Your task to perform on an android device: Clear the cart on walmart. Add "logitech g933" to the cart on walmart Image 0: 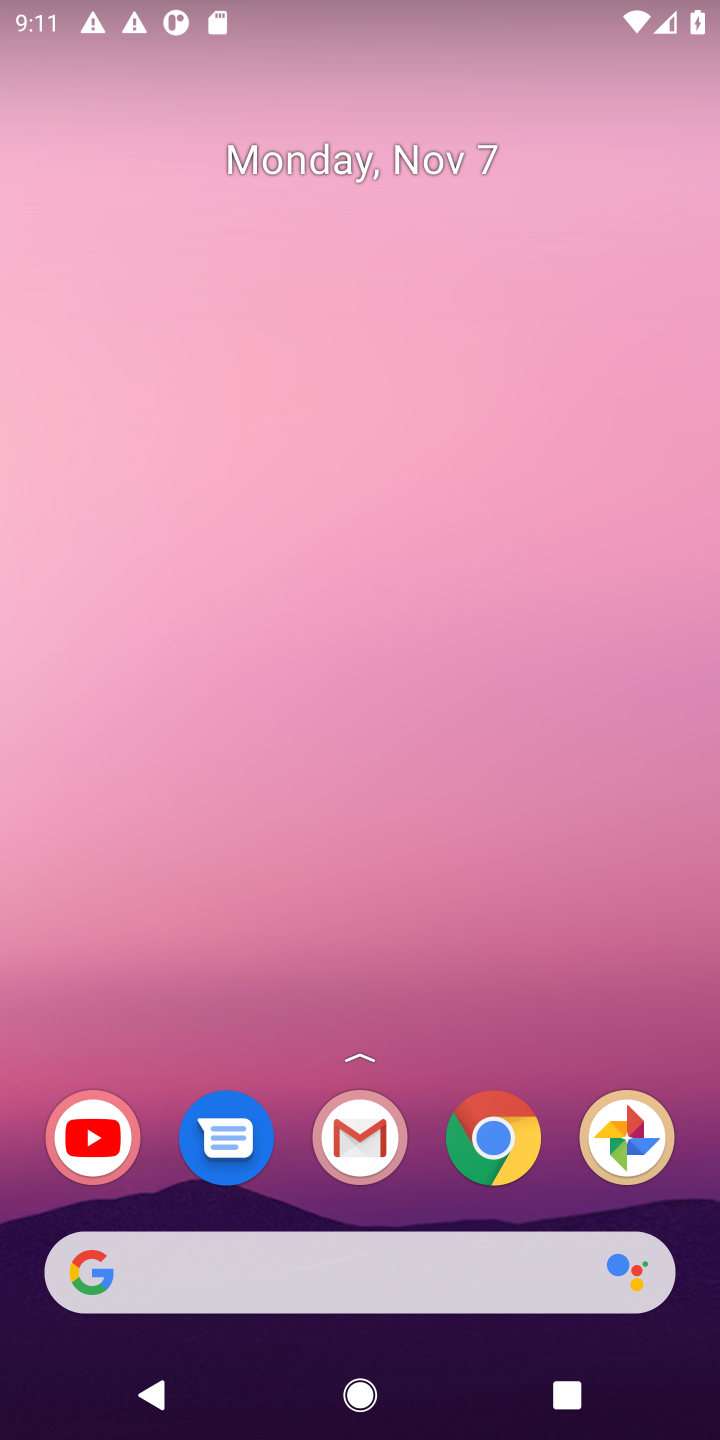
Step 0: click (497, 1129)
Your task to perform on an android device: Clear the cart on walmart. Add "logitech g933" to the cart on walmart Image 1: 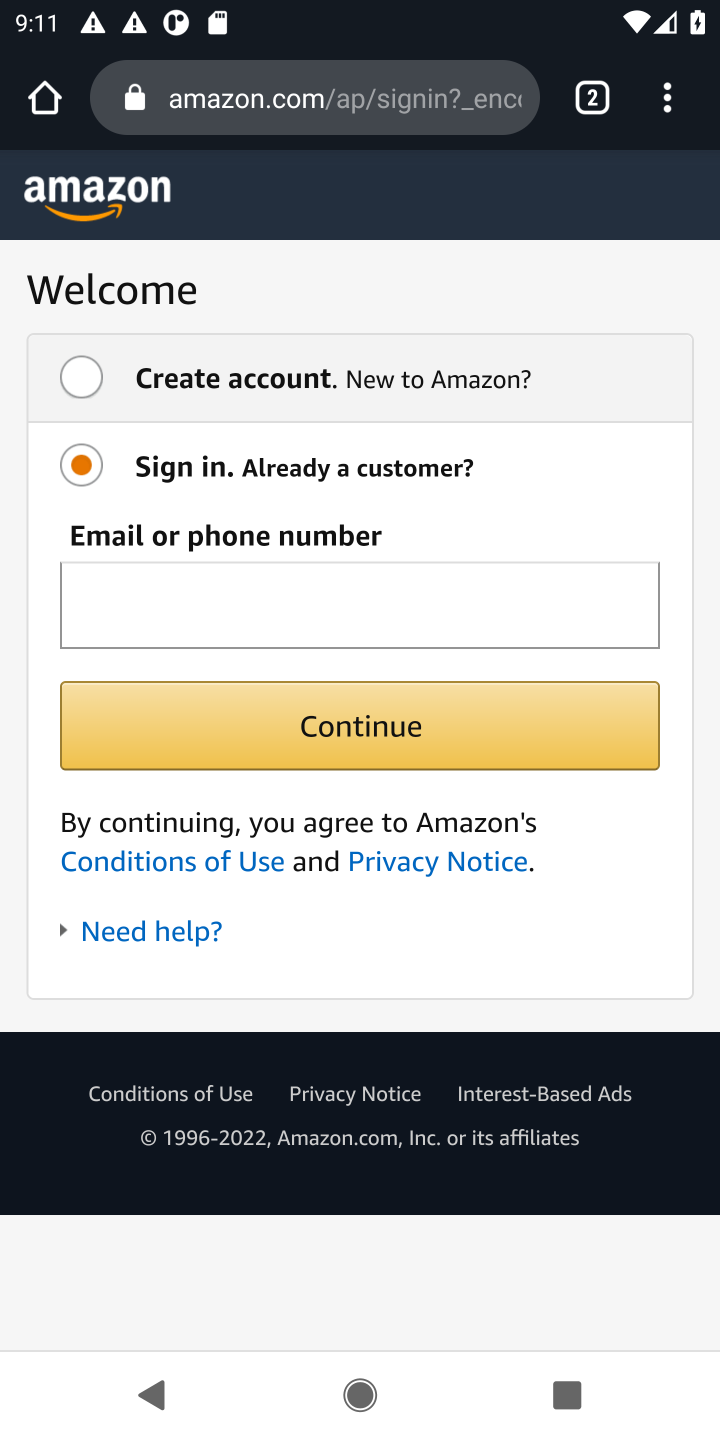
Step 1: click (603, 115)
Your task to perform on an android device: Clear the cart on walmart. Add "logitech g933" to the cart on walmart Image 2: 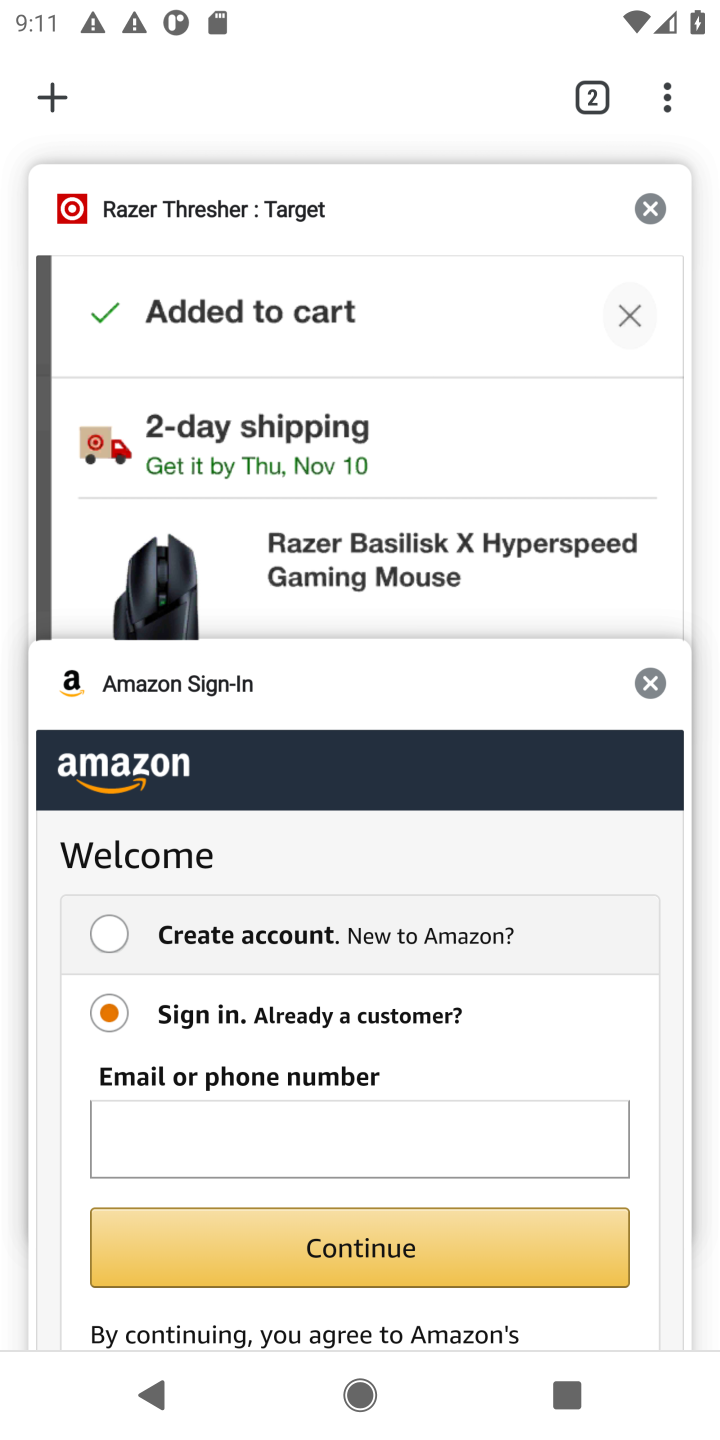
Step 2: click (41, 111)
Your task to perform on an android device: Clear the cart on walmart. Add "logitech g933" to the cart on walmart Image 3: 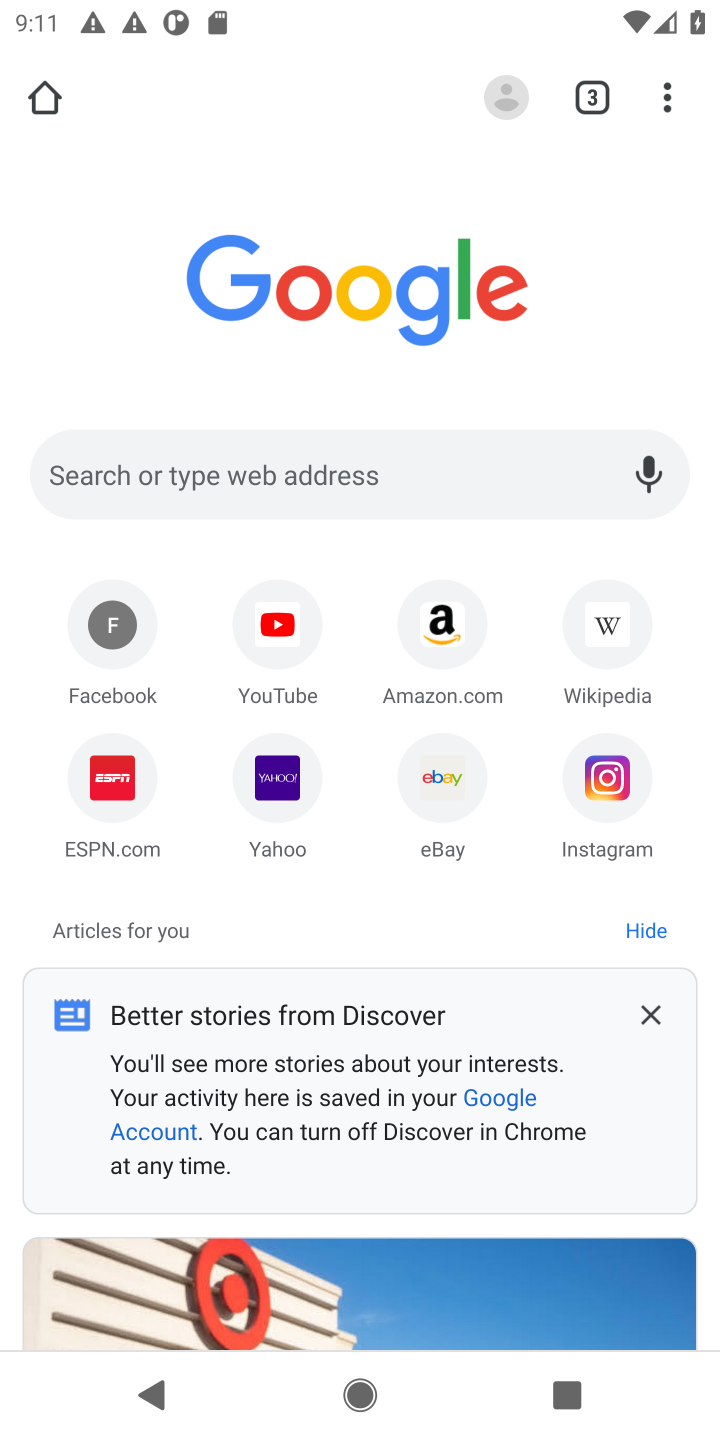
Step 3: click (211, 470)
Your task to perform on an android device: Clear the cart on walmart. Add "logitech g933" to the cart on walmart Image 4: 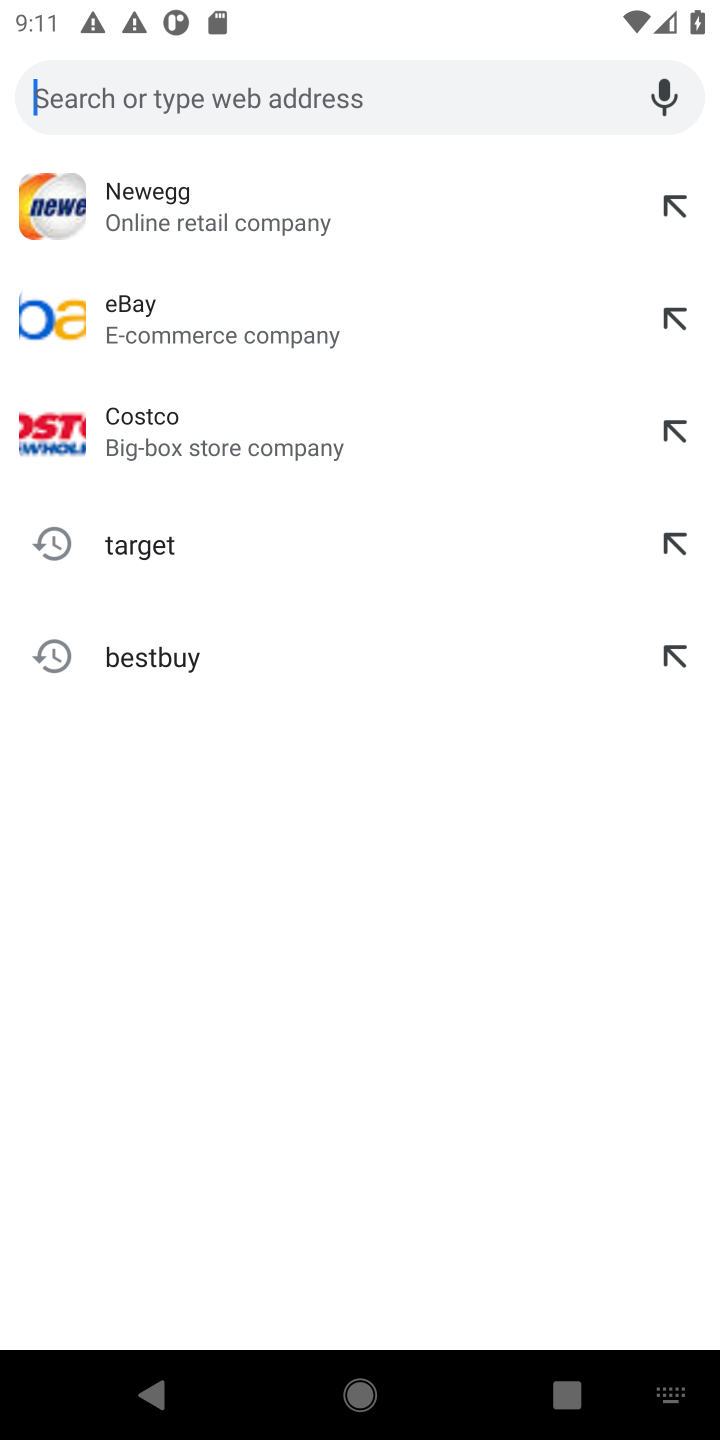
Step 4: type "walmart"
Your task to perform on an android device: Clear the cart on walmart. Add "logitech g933" to the cart on walmart Image 5: 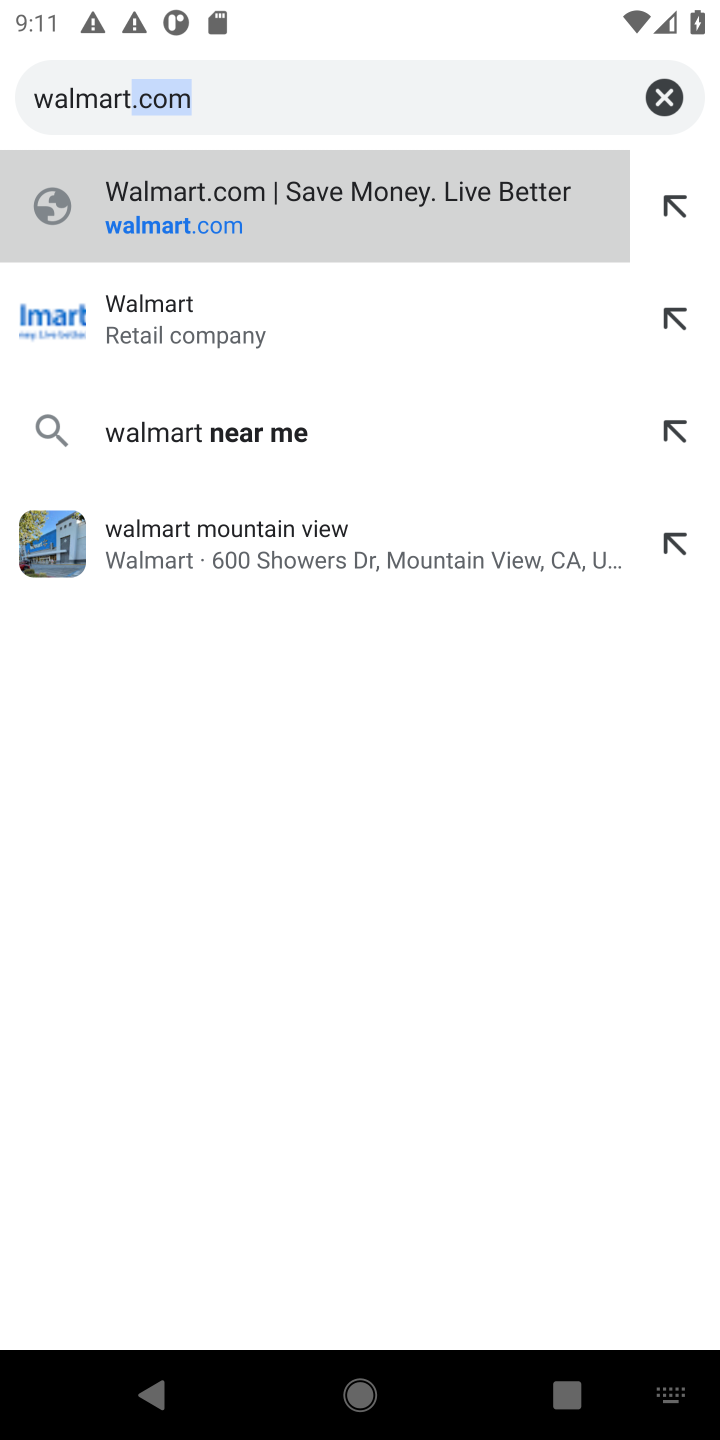
Step 5: type "walmart"
Your task to perform on an android device: Clear the cart on walmart. Add "logitech g933" to the cart on walmart Image 6: 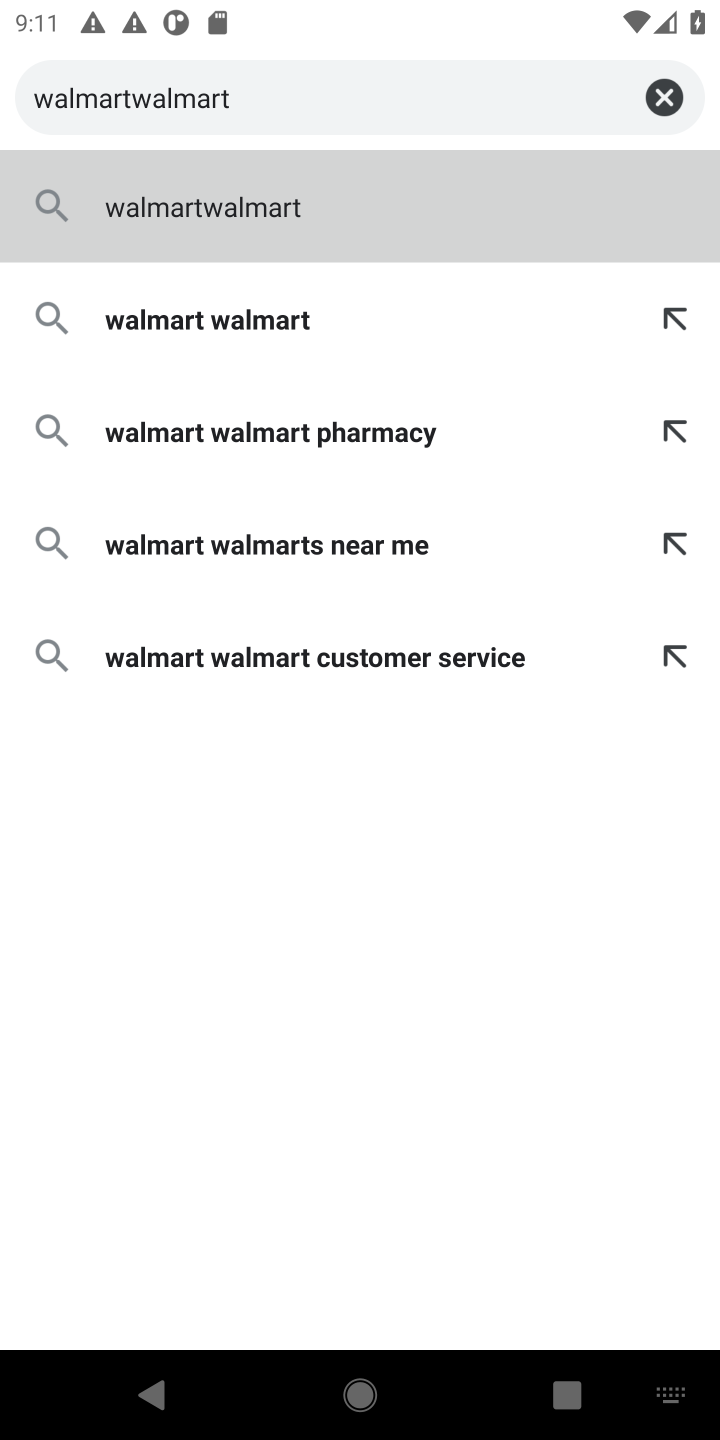
Step 6: click (284, 218)
Your task to perform on an android device: Clear the cart on walmart. Add "logitech g933" to the cart on walmart Image 7: 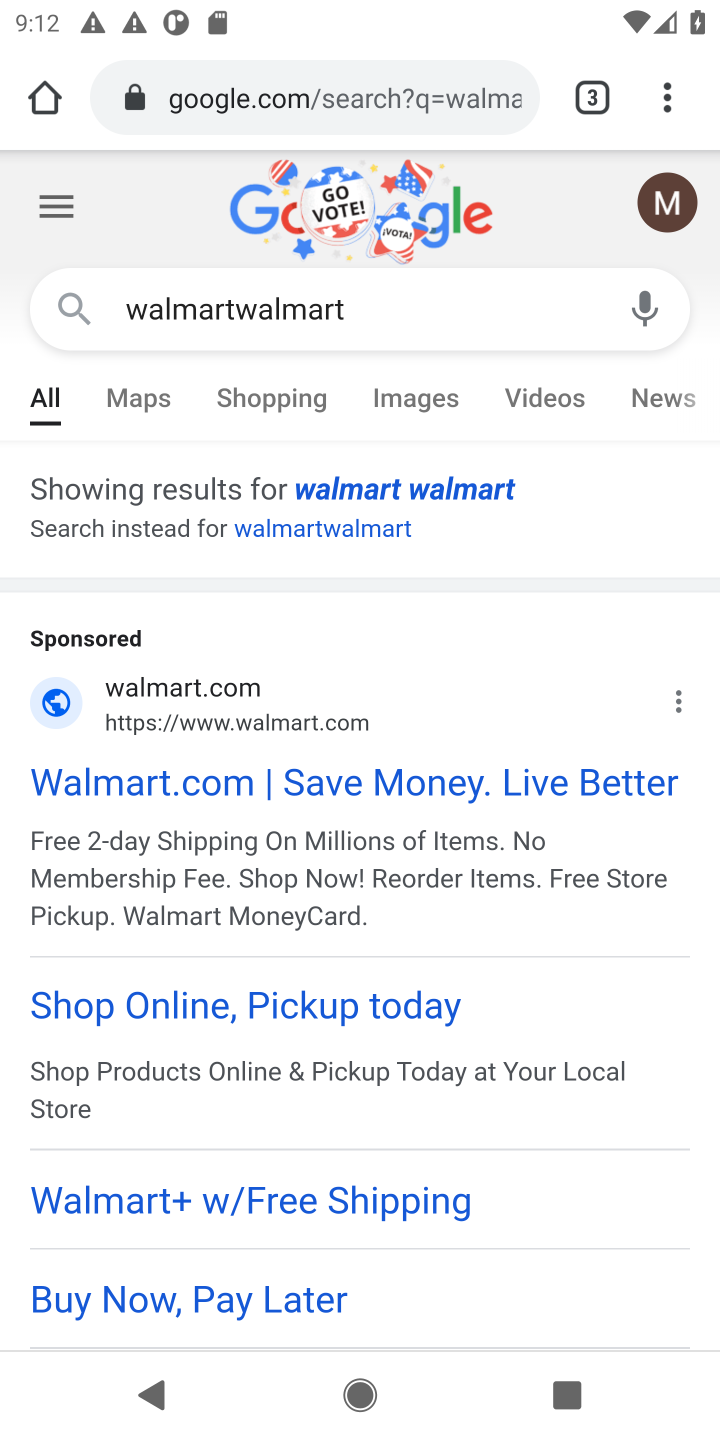
Step 7: drag from (495, 1156) to (506, 362)
Your task to perform on an android device: Clear the cart on walmart. Add "logitech g933" to the cart on walmart Image 8: 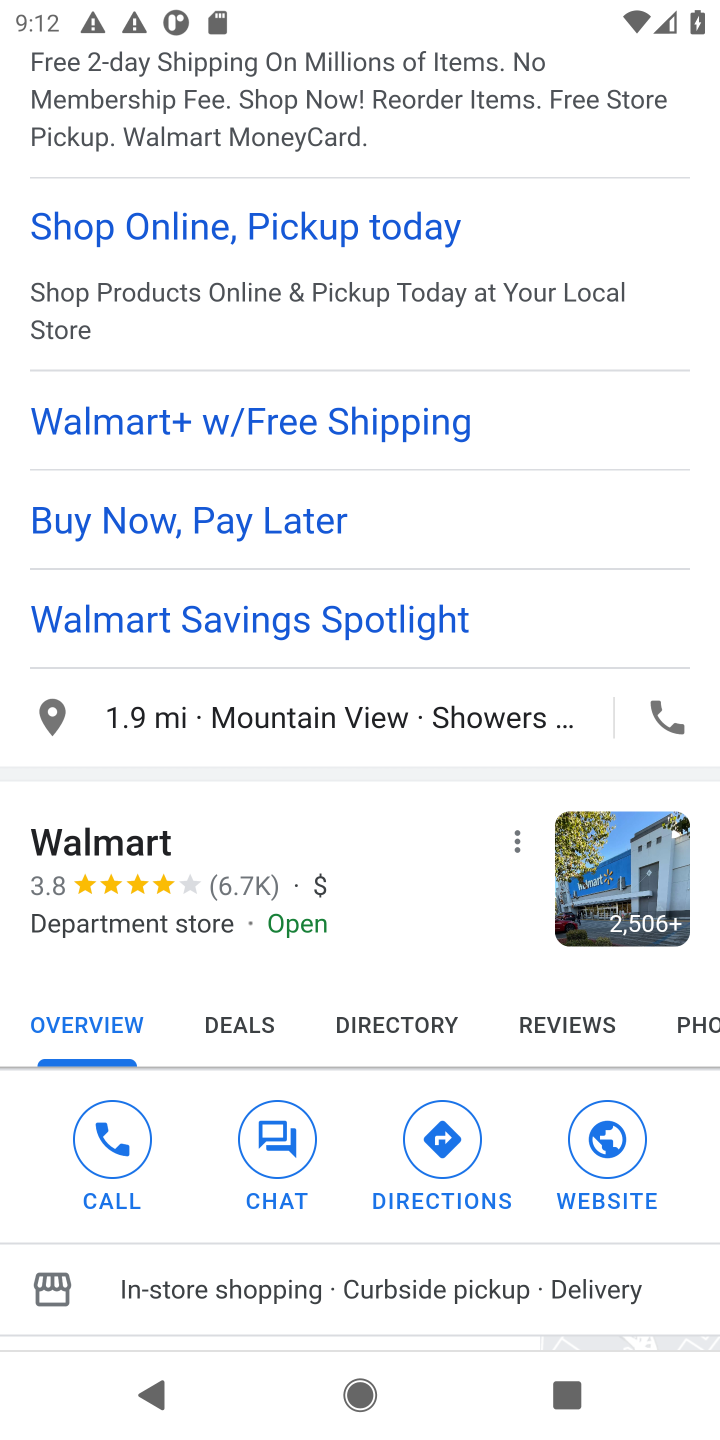
Step 8: drag from (448, 267) to (450, 1073)
Your task to perform on an android device: Clear the cart on walmart. Add "logitech g933" to the cart on walmart Image 9: 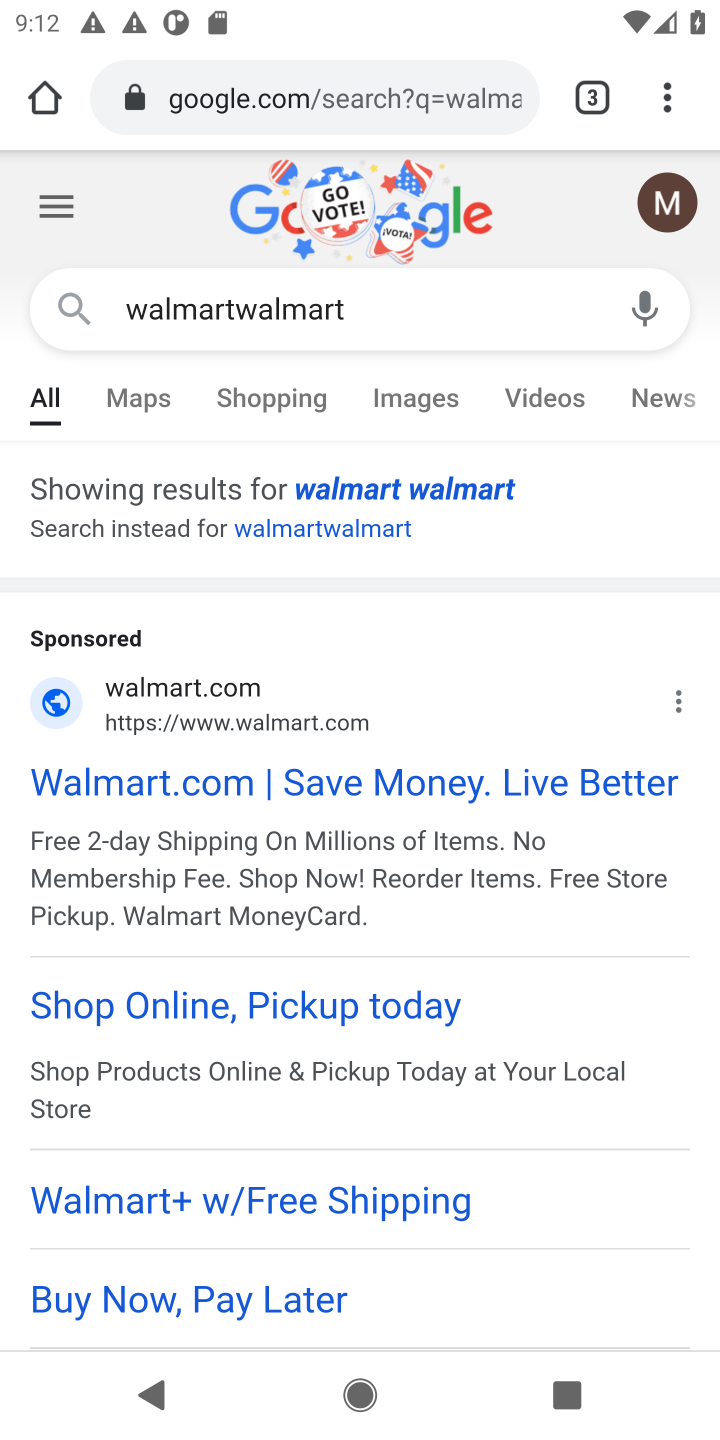
Step 9: click (212, 784)
Your task to perform on an android device: Clear the cart on walmart. Add "logitech g933" to the cart on walmart Image 10: 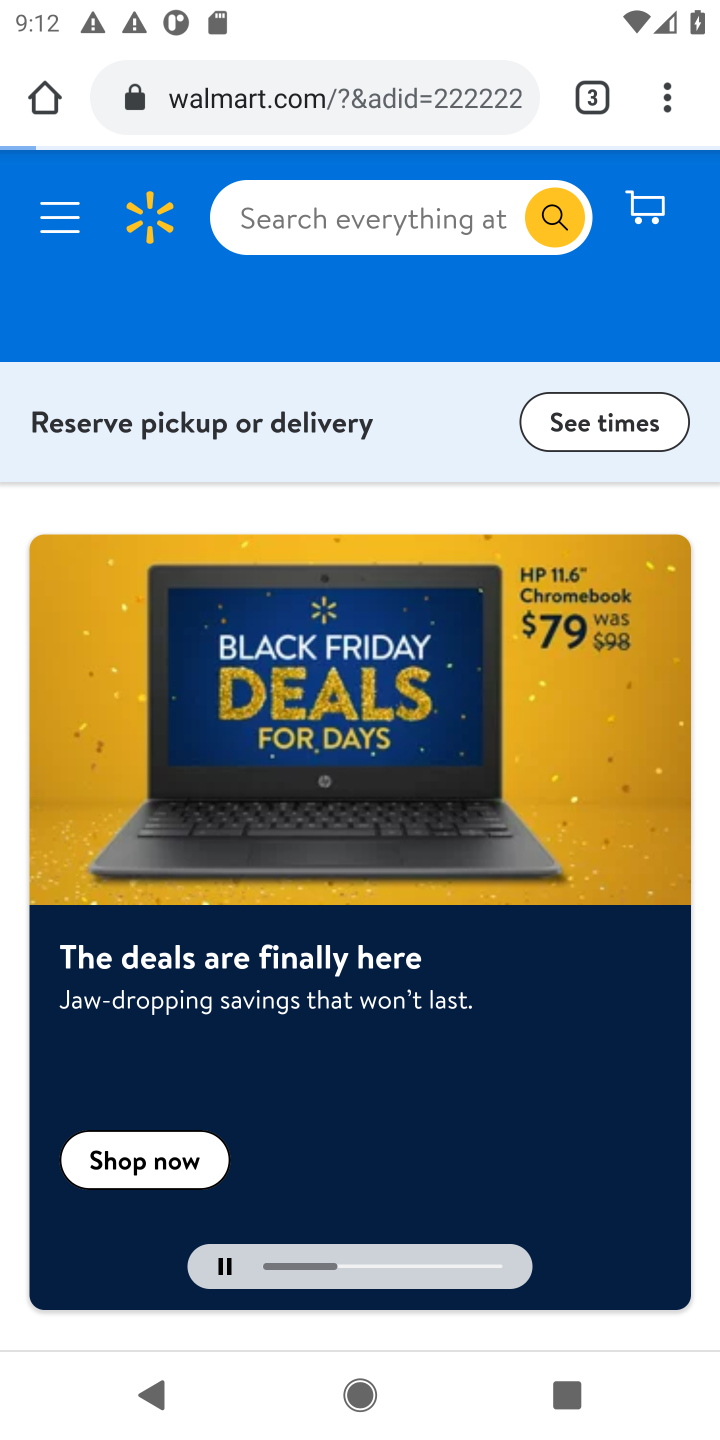
Step 10: click (346, 218)
Your task to perform on an android device: Clear the cart on walmart. Add "logitech g933" to the cart on walmart Image 11: 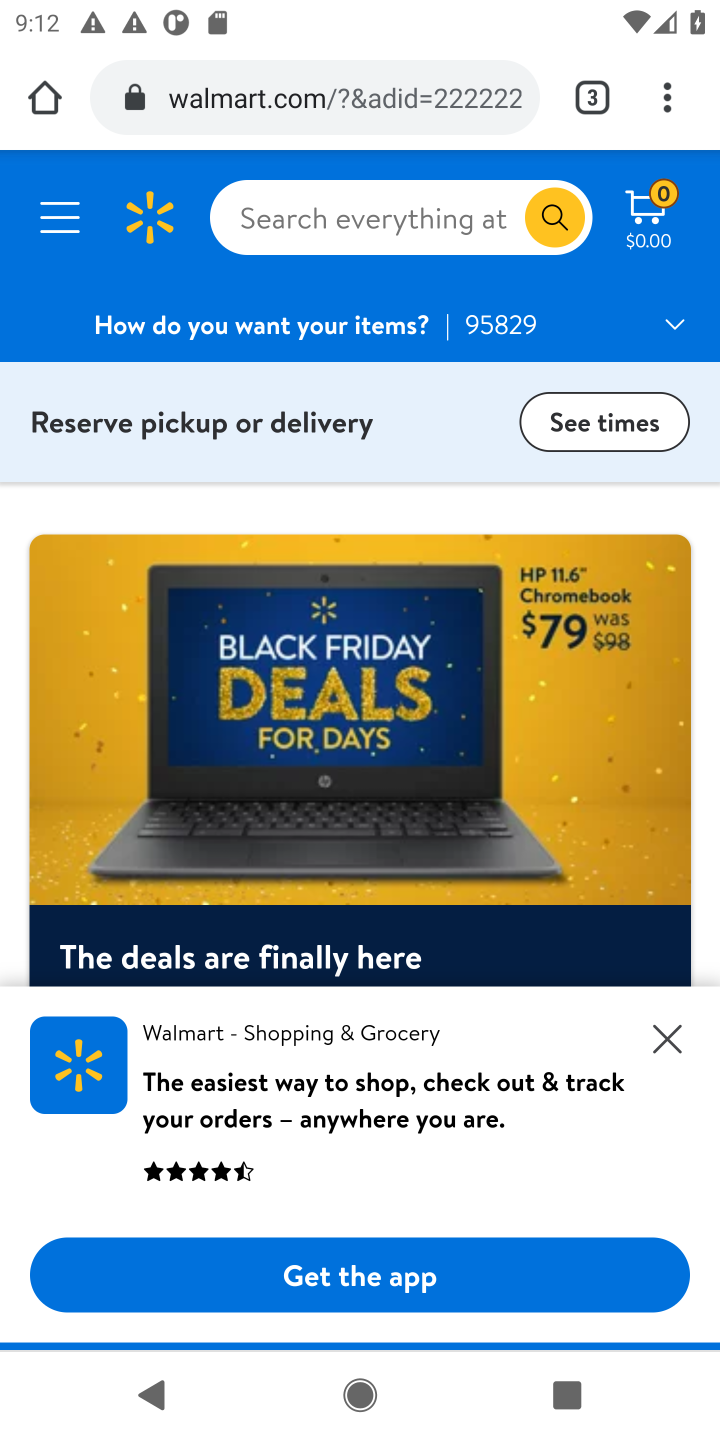
Step 11: type "logitech g933"
Your task to perform on an android device: Clear the cart on walmart. Add "logitech g933" to the cart on walmart Image 12: 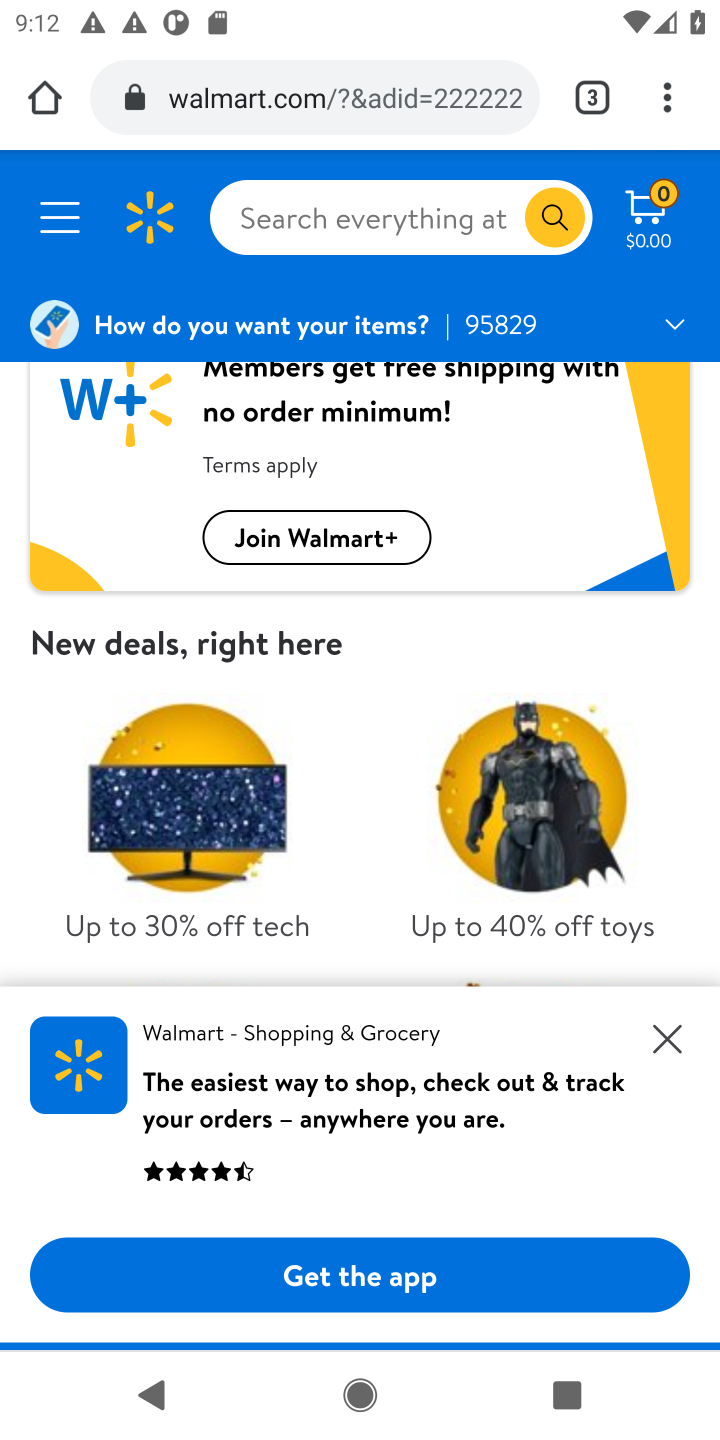
Step 12: click (673, 1033)
Your task to perform on an android device: Clear the cart on walmart. Add "logitech g933" to the cart on walmart Image 13: 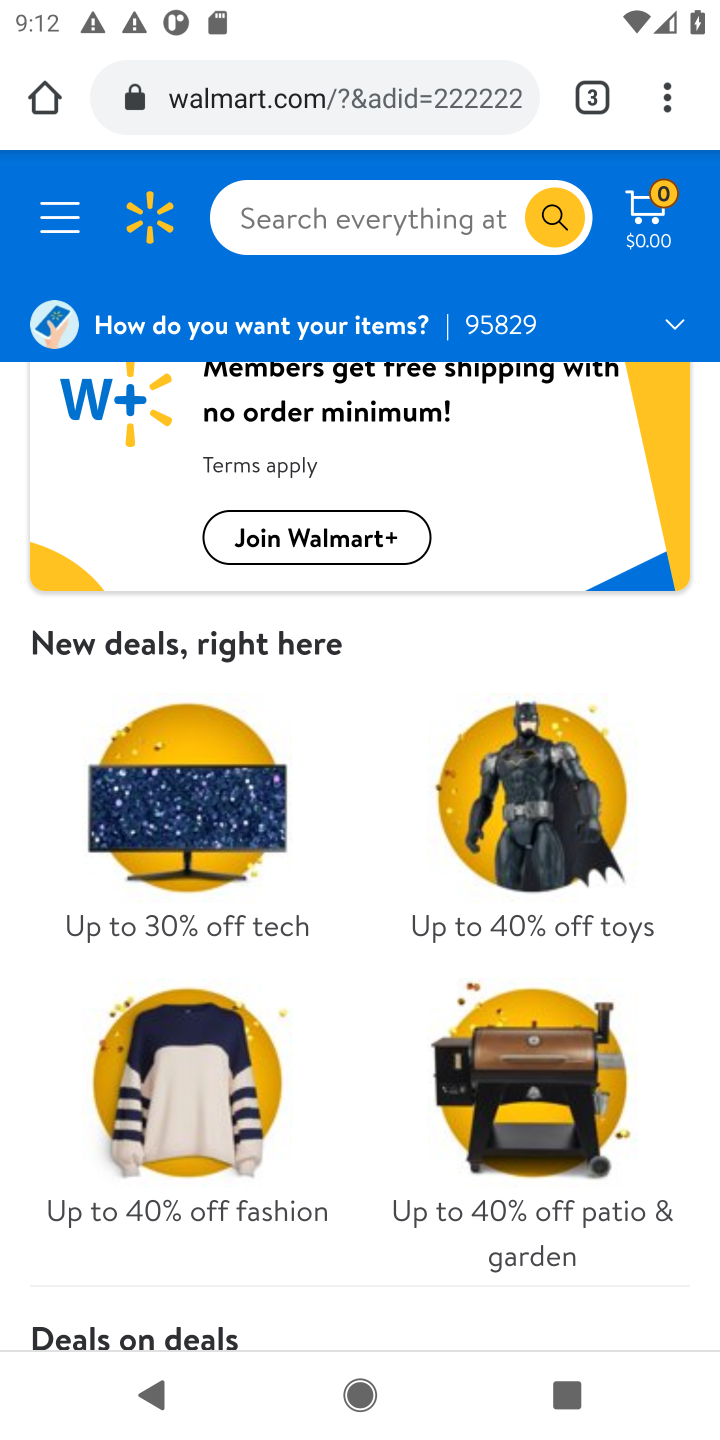
Step 13: click (396, 210)
Your task to perform on an android device: Clear the cart on walmart. Add "logitech g933" to the cart on walmart Image 14: 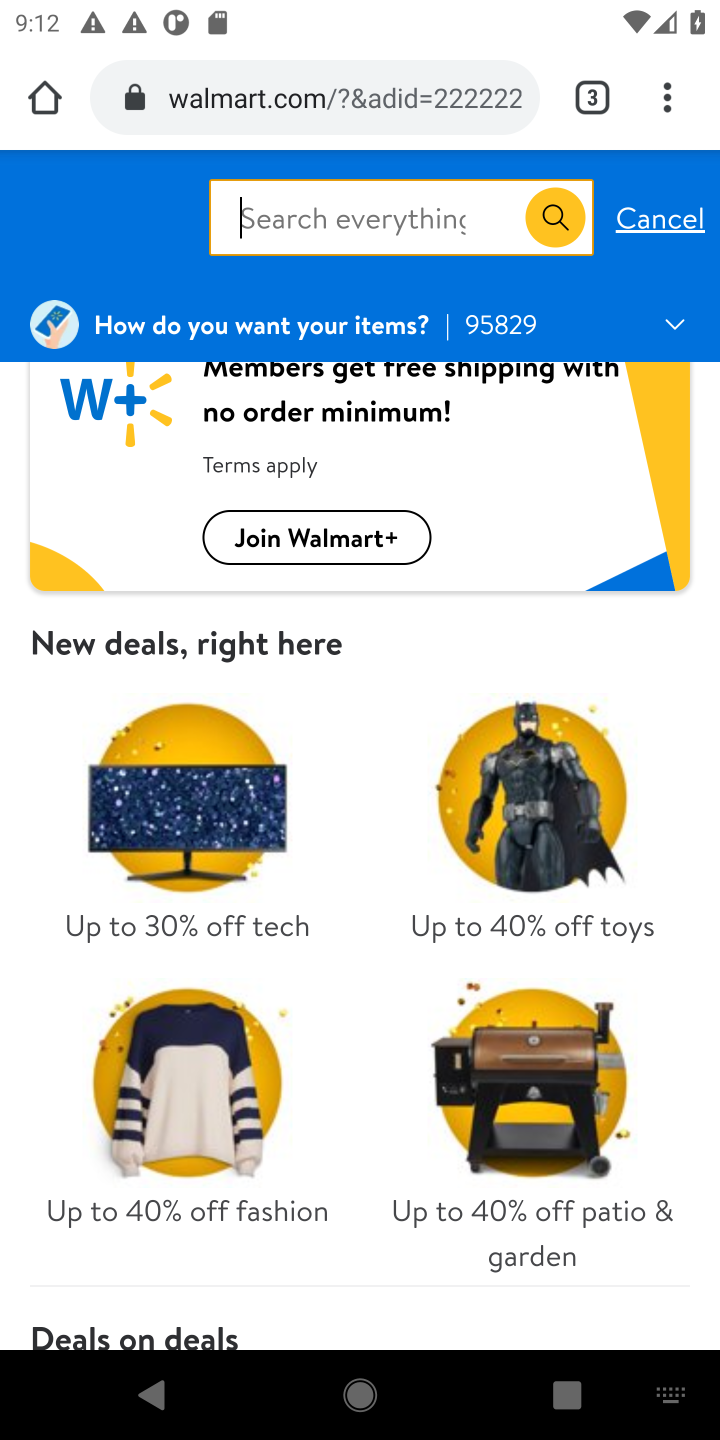
Step 14: type "logitech g933"
Your task to perform on an android device: Clear the cart on walmart. Add "logitech g933" to the cart on walmart Image 15: 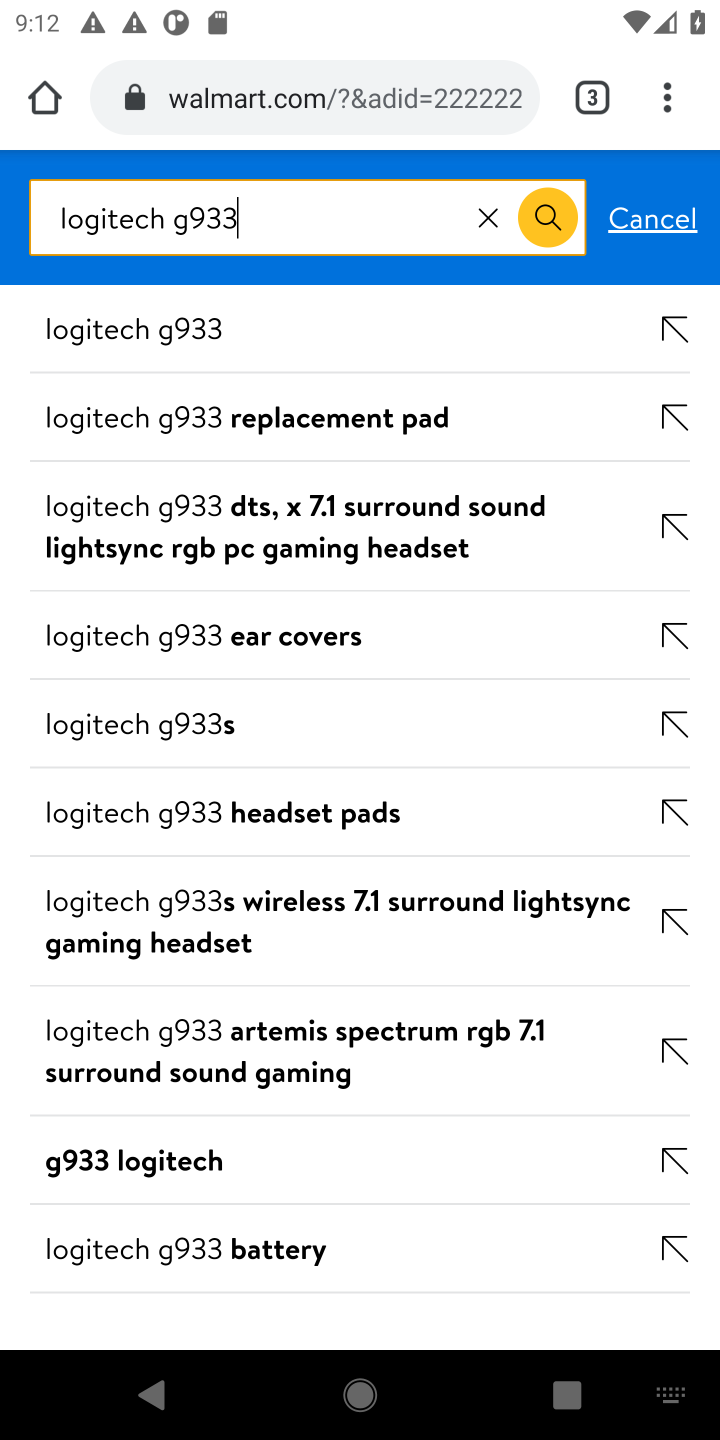
Step 15: click (187, 330)
Your task to perform on an android device: Clear the cart on walmart. Add "logitech g933" to the cart on walmart Image 16: 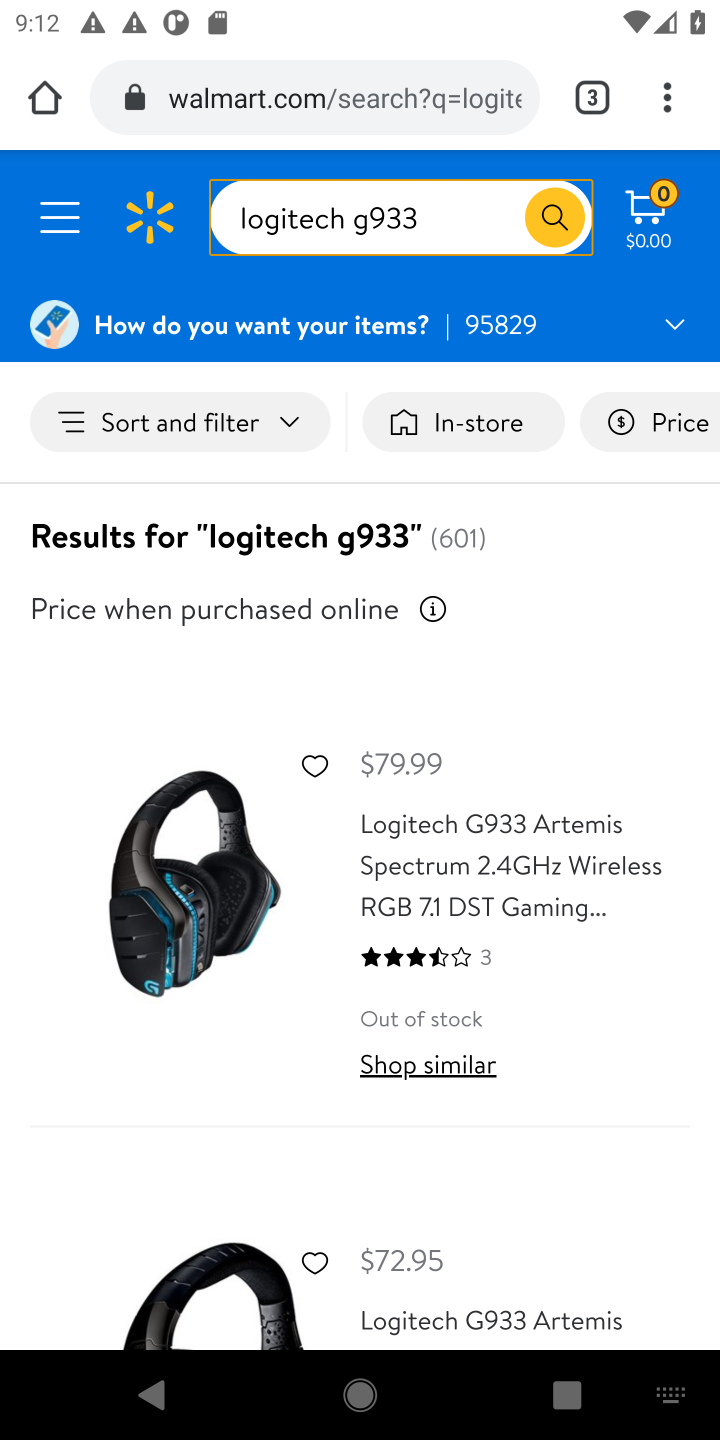
Step 16: click (481, 898)
Your task to perform on an android device: Clear the cart on walmart. Add "logitech g933" to the cart on walmart Image 17: 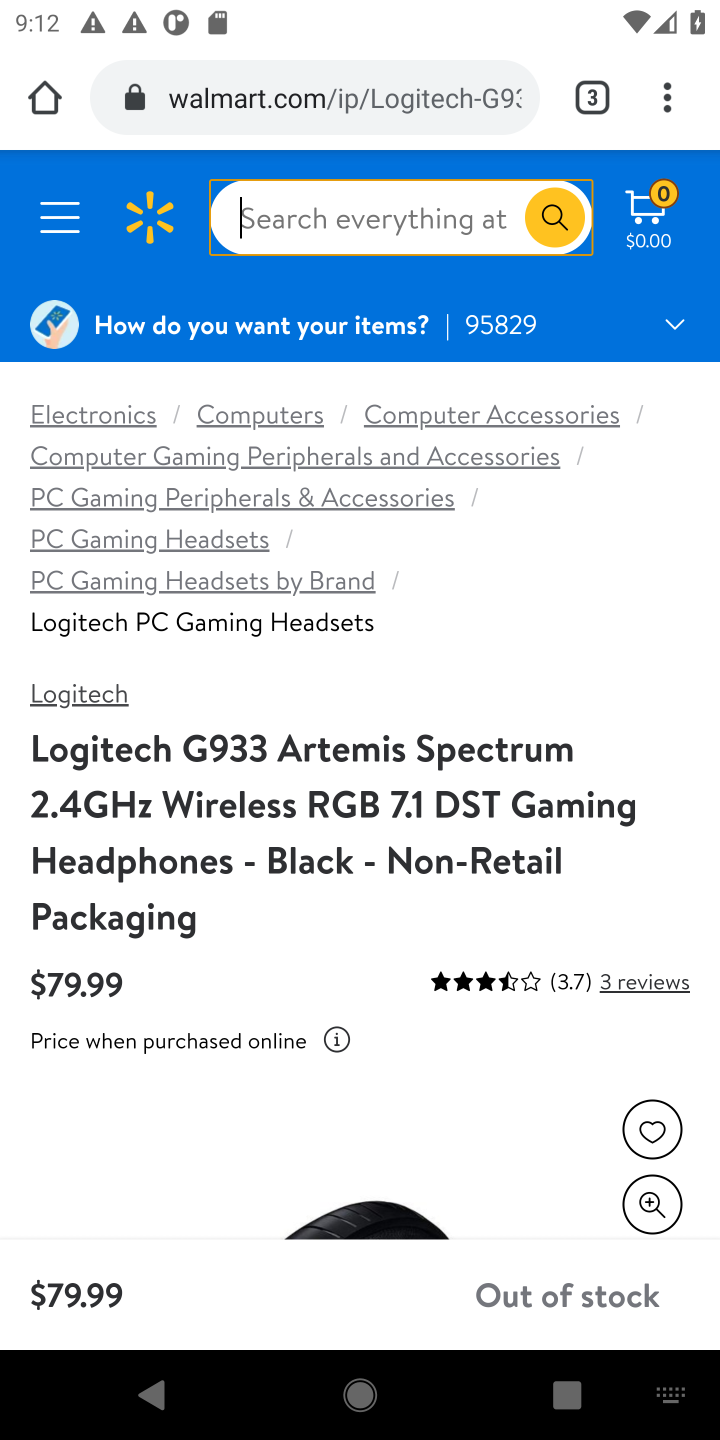
Step 17: drag from (283, 1118) to (341, 293)
Your task to perform on an android device: Clear the cart on walmart. Add "logitech g933" to the cart on walmart Image 18: 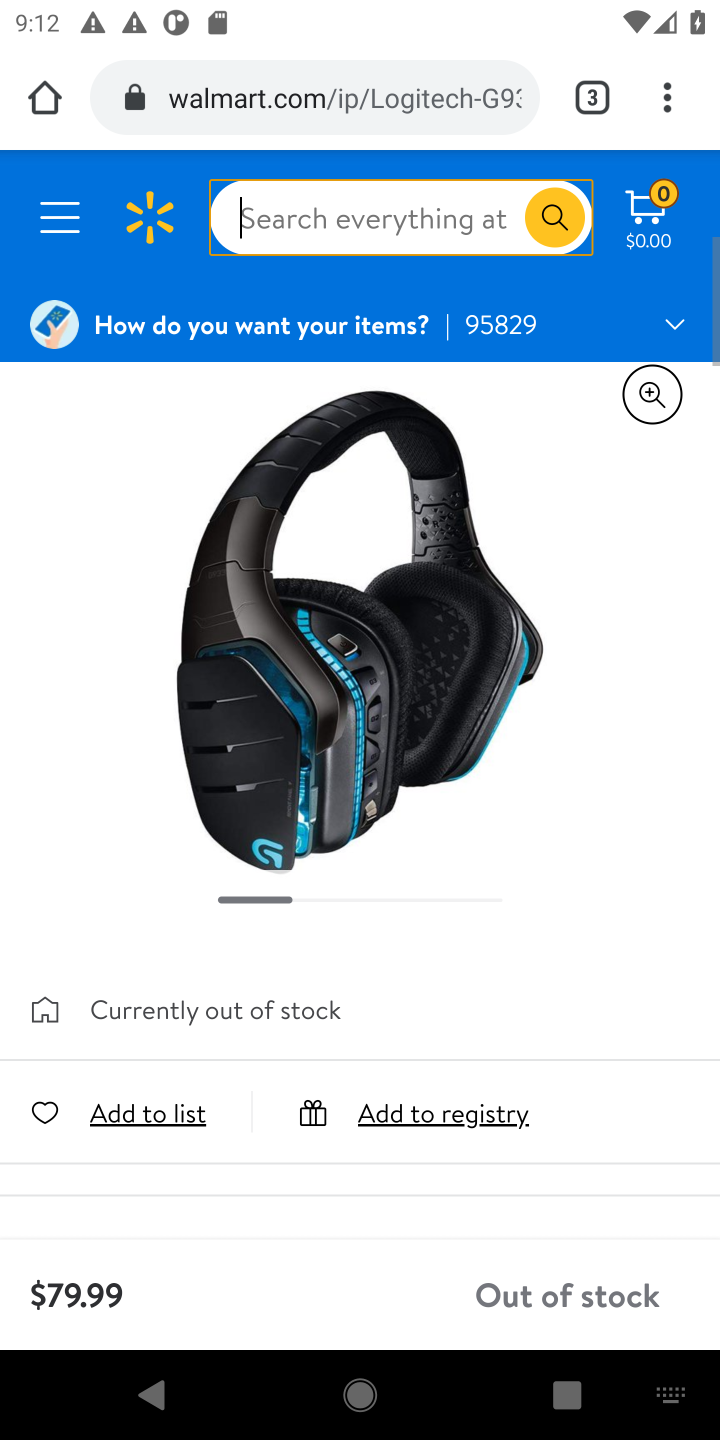
Step 18: drag from (432, 1141) to (505, 576)
Your task to perform on an android device: Clear the cart on walmart. Add "logitech g933" to the cart on walmart Image 19: 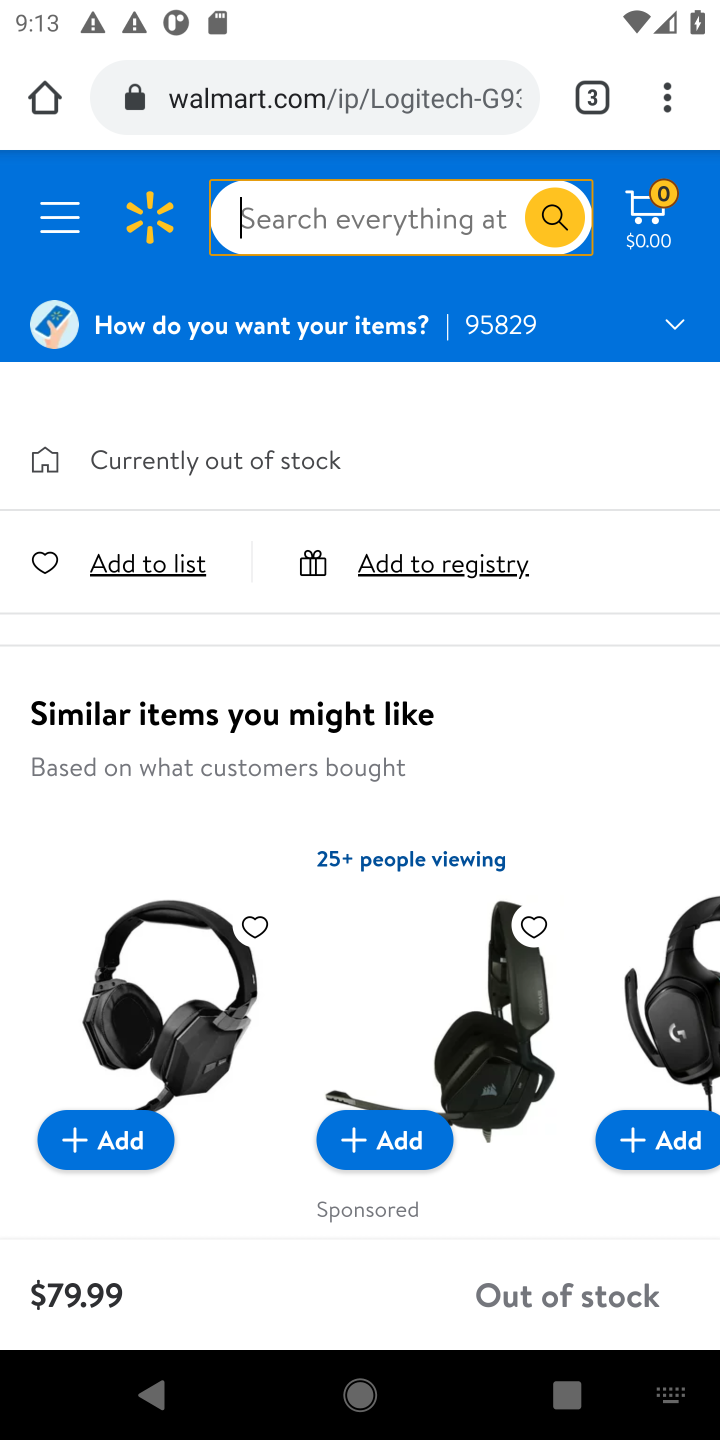
Step 19: click (93, 1150)
Your task to perform on an android device: Clear the cart on walmart. Add "logitech g933" to the cart on walmart Image 20: 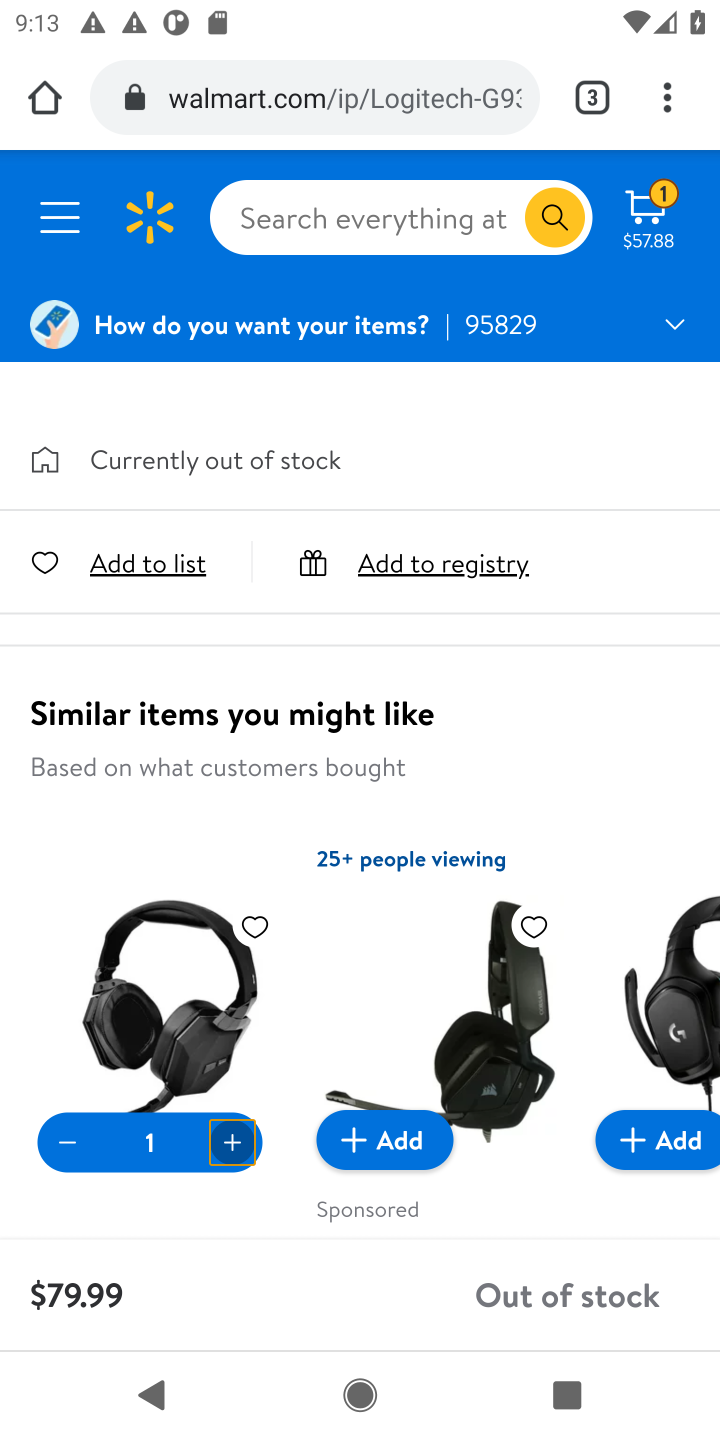
Step 20: task complete